Your task to perform on an android device: Open sound settings Image 0: 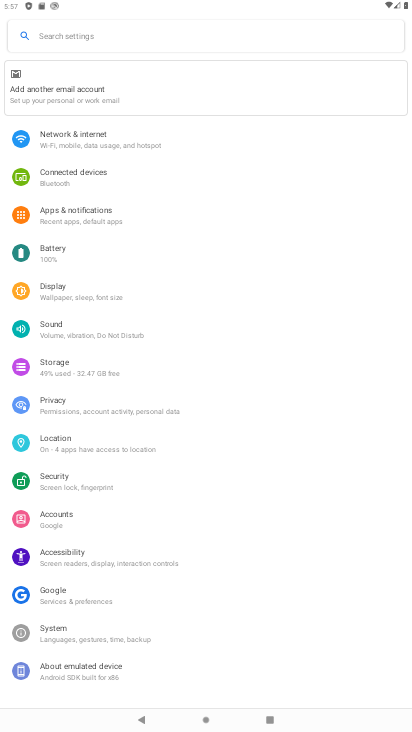
Step 0: press home button
Your task to perform on an android device: Open sound settings Image 1: 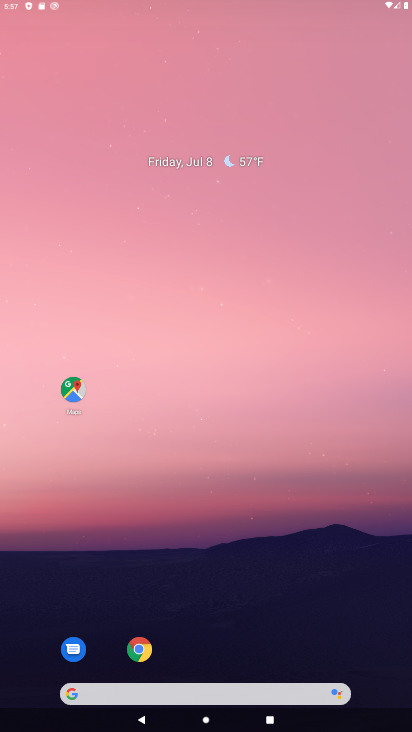
Step 1: click (158, 32)
Your task to perform on an android device: Open sound settings Image 2: 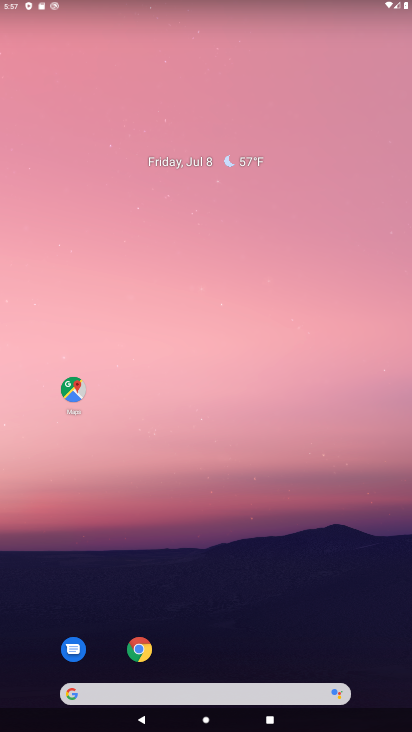
Step 2: drag from (274, 683) to (306, 87)
Your task to perform on an android device: Open sound settings Image 3: 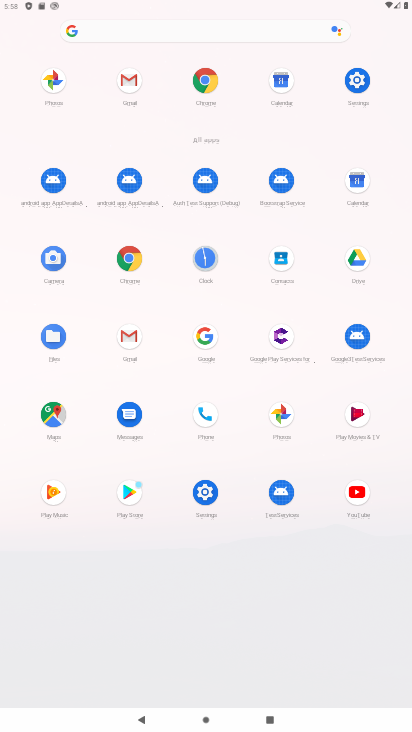
Step 3: click (359, 74)
Your task to perform on an android device: Open sound settings Image 4: 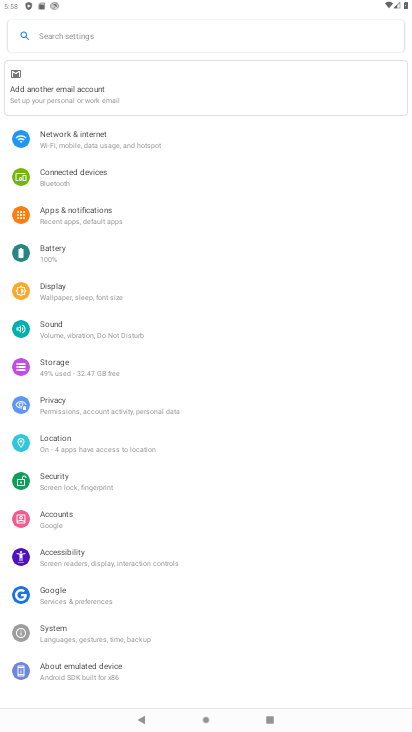
Step 4: click (58, 324)
Your task to perform on an android device: Open sound settings Image 5: 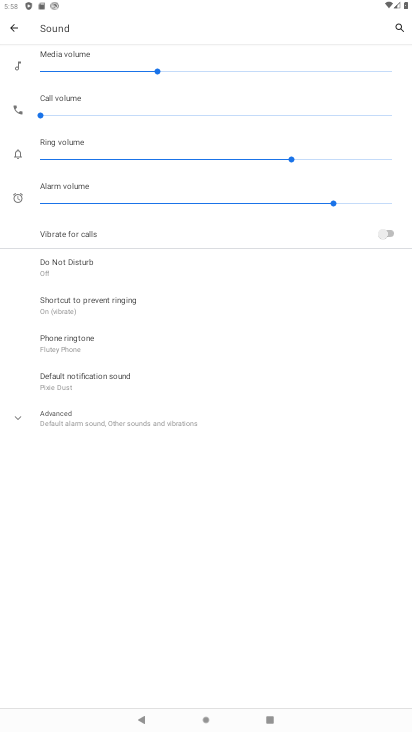
Step 5: task complete